Your task to perform on an android device: Open the Play Movies app and select the watchlist tab. Image 0: 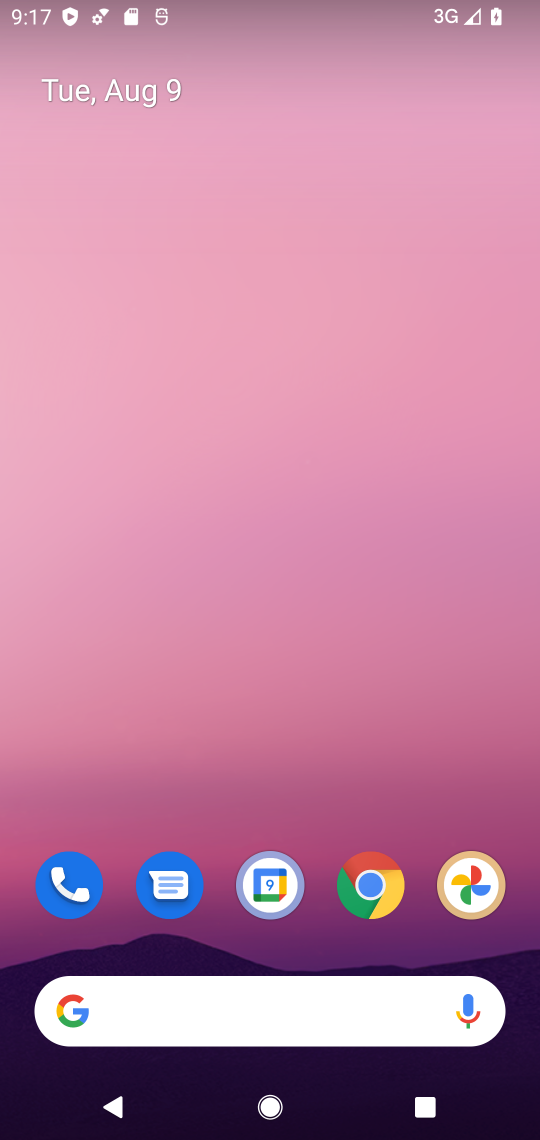
Step 0: press home button
Your task to perform on an android device: Open the Play Movies app and select the watchlist tab. Image 1: 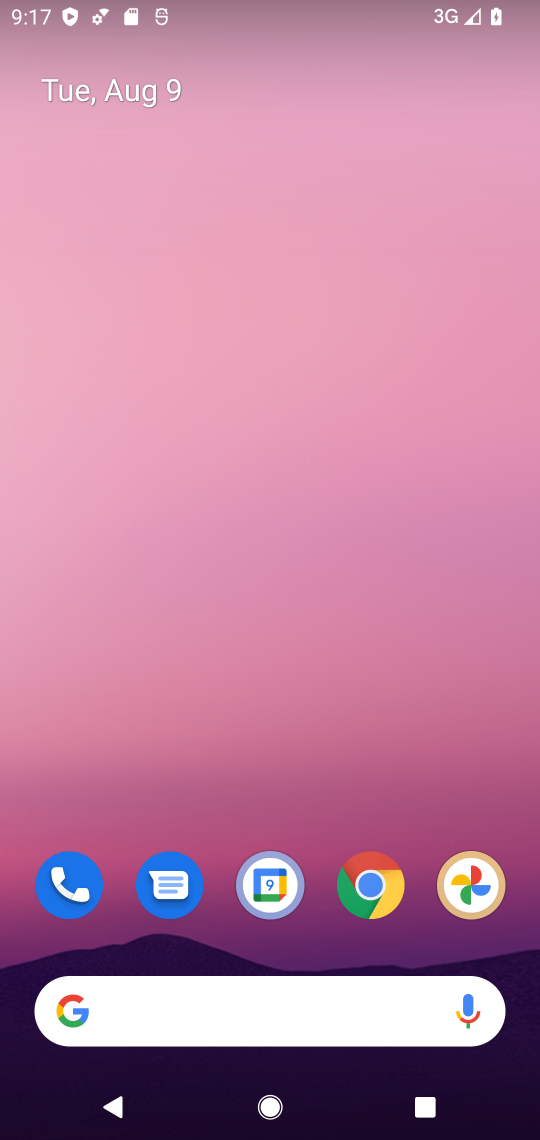
Step 1: task complete